Your task to perform on an android device: Open eBay Image 0: 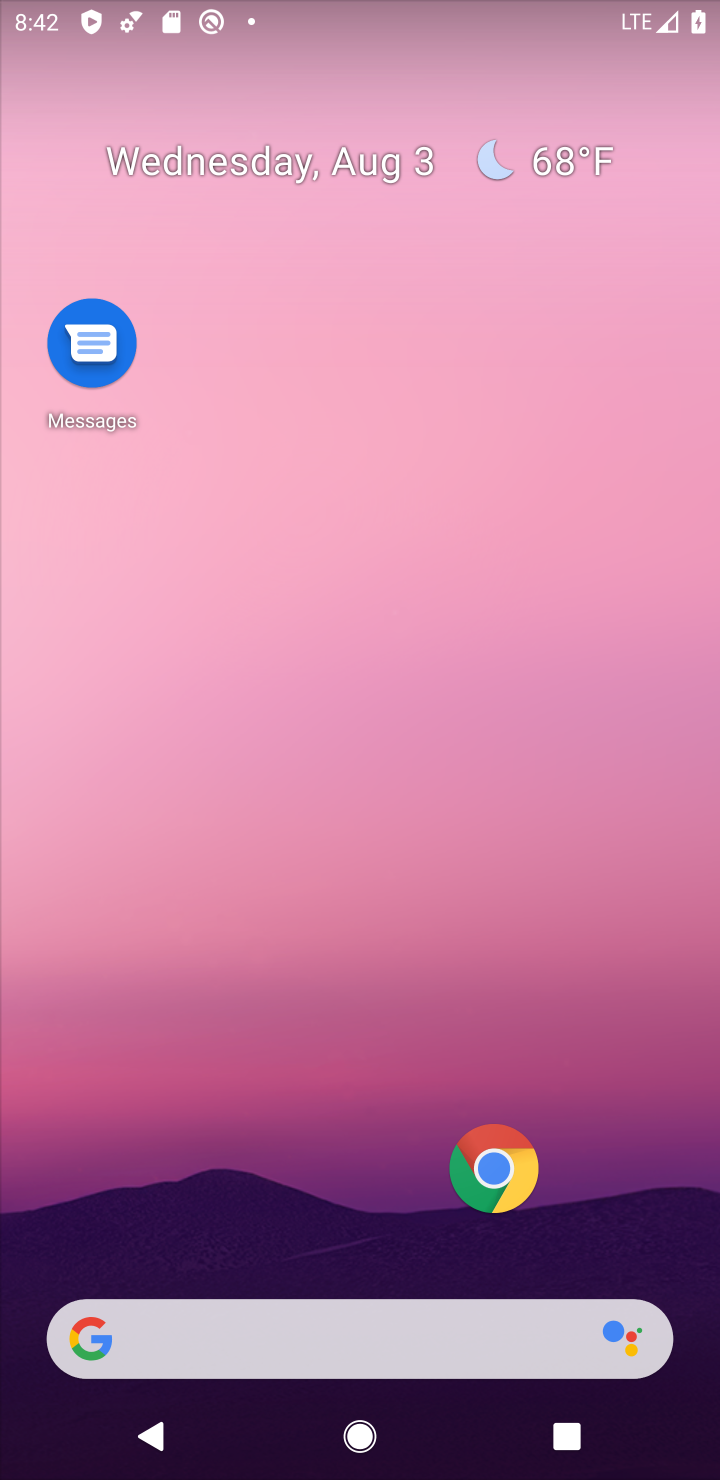
Step 0: click (483, 1190)
Your task to perform on an android device: Open eBay Image 1: 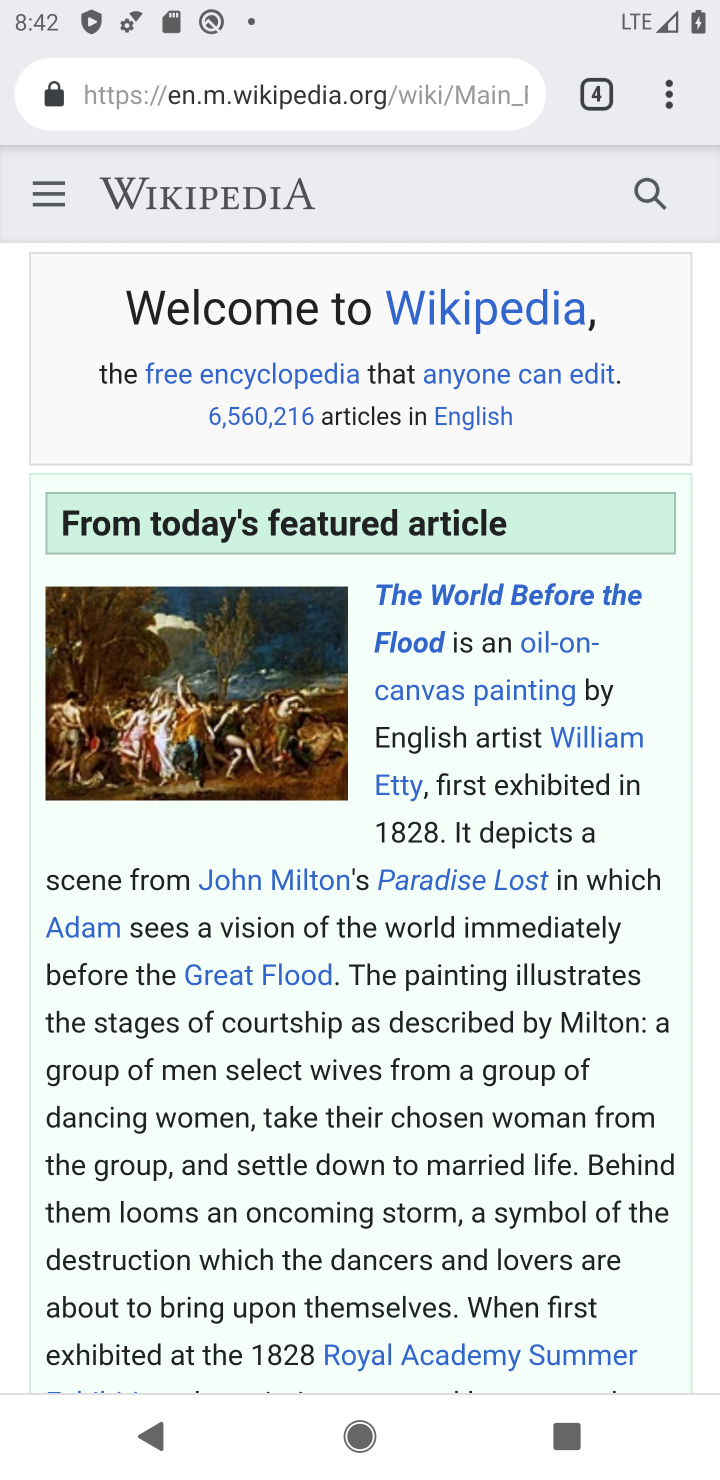
Step 1: click (600, 66)
Your task to perform on an android device: Open eBay Image 2: 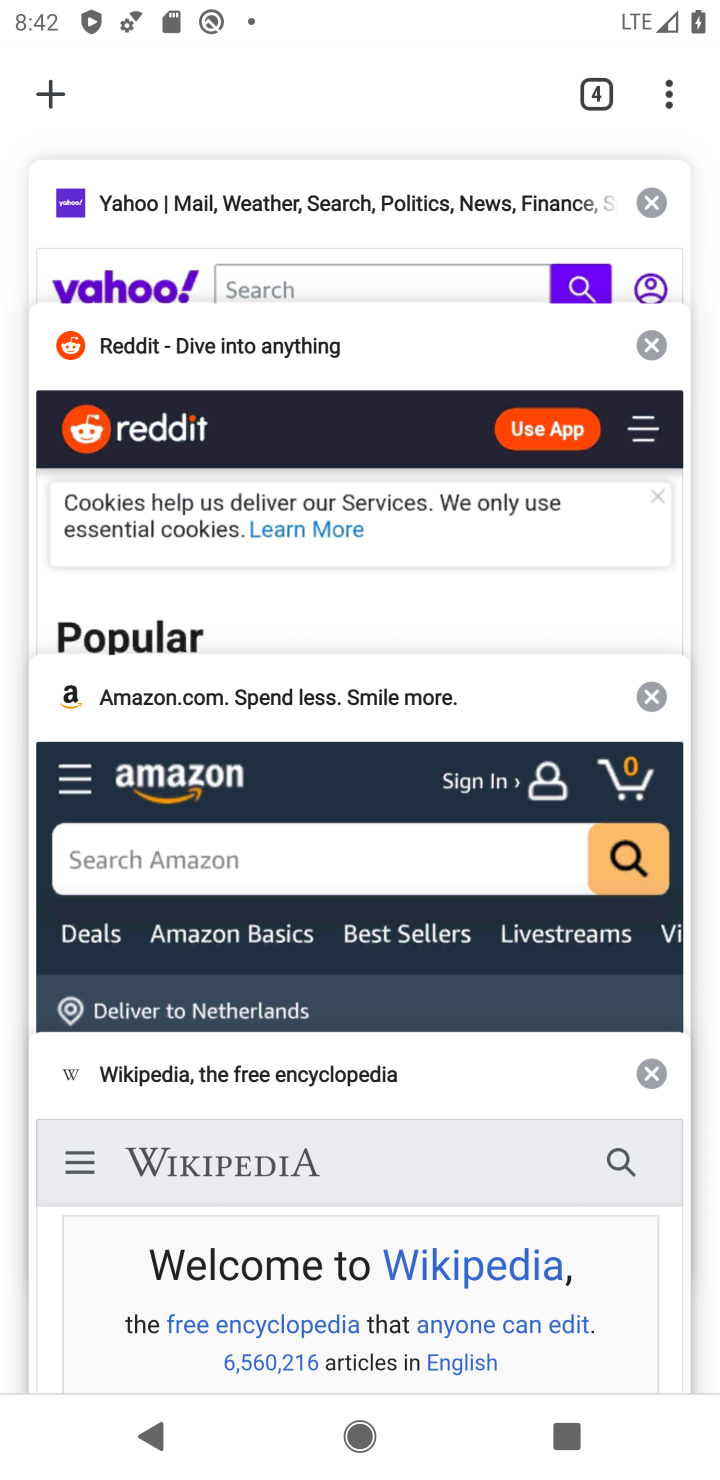
Step 2: click (59, 103)
Your task to perform on an android device: Open eBay Image 3: 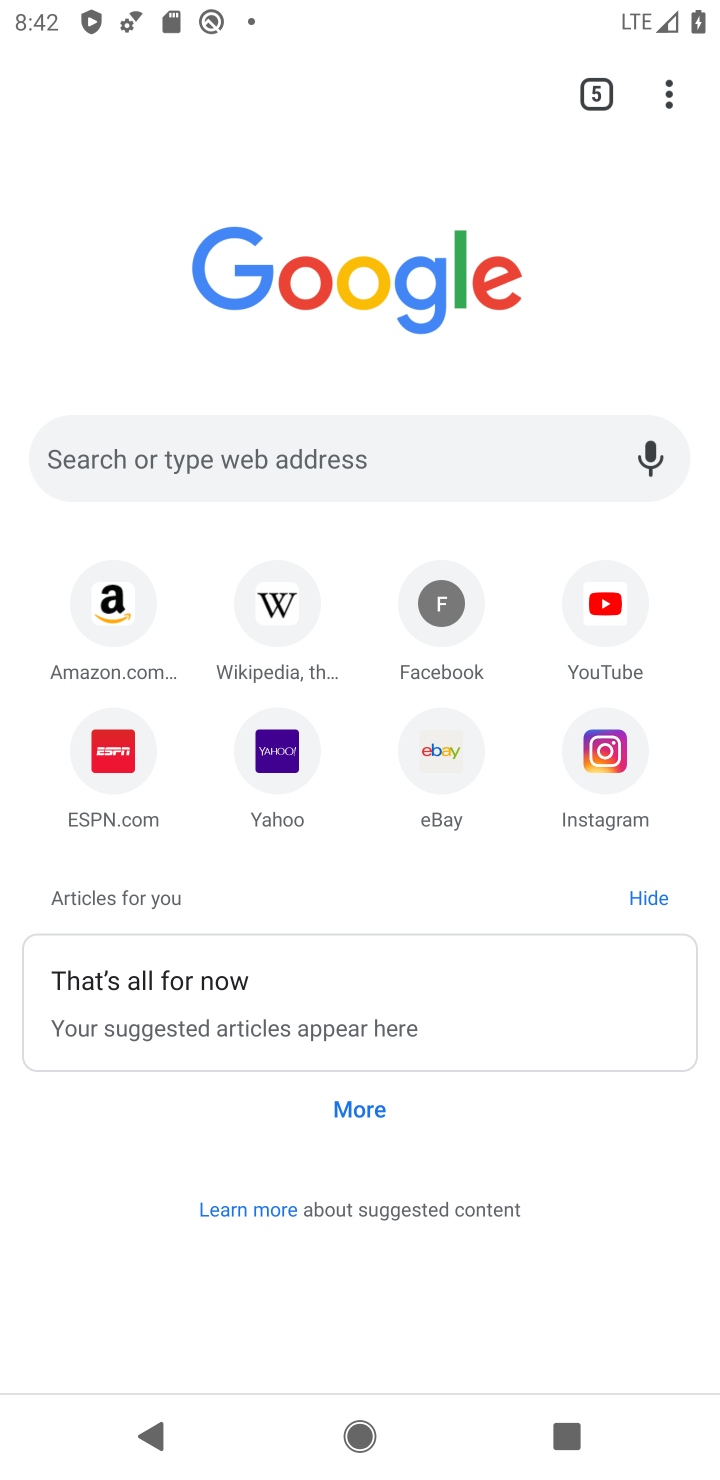
Step 3: click (452, 769)
Your task to perform on an android device: Open eBay Image 4: 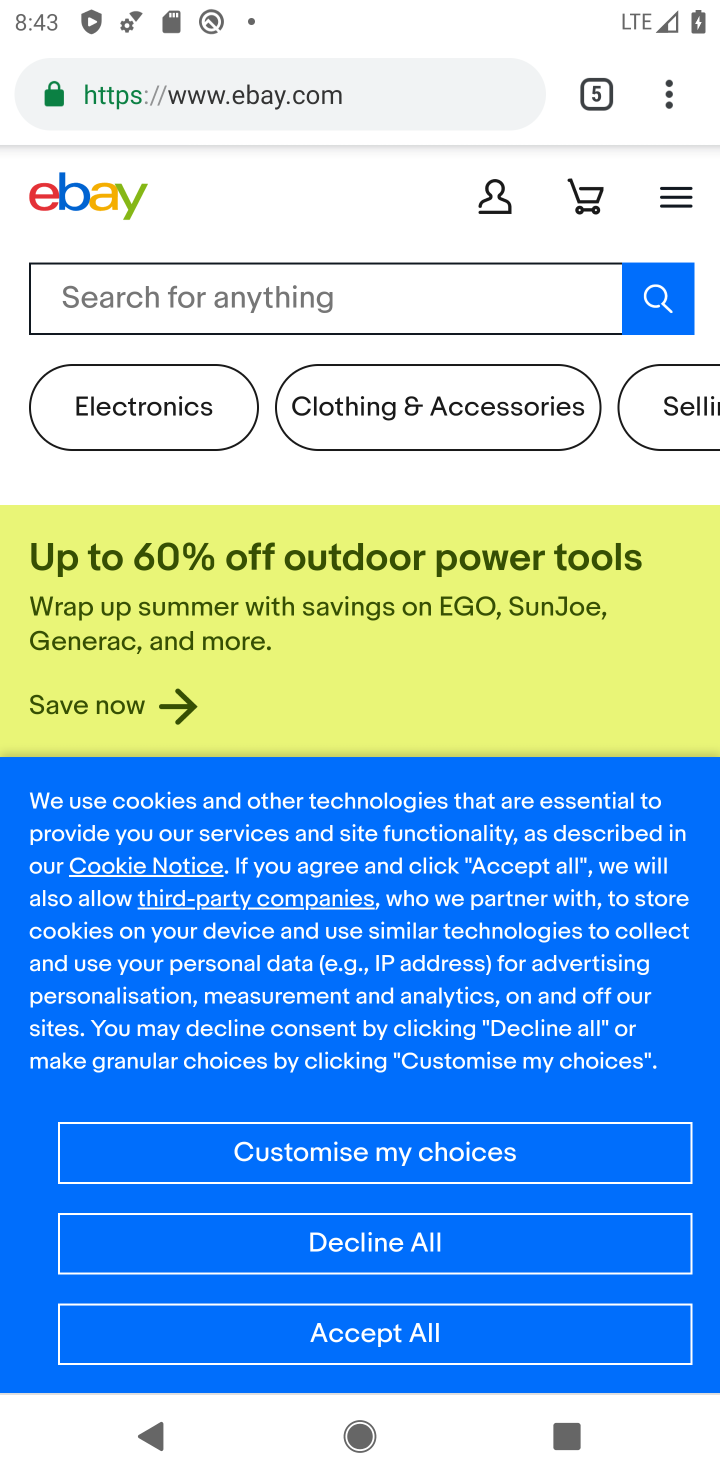
Step 4: task complete